Your task to perform on an android device: delete the emails in spam in the gmail app Image 0: 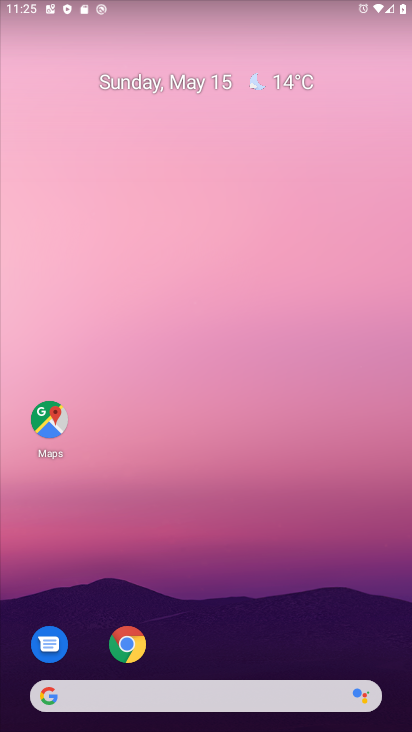
Step 0: drag from (247, 460) to (171, 72)
Your task to perform on an android device: delete the emails in spam in the gmail app Image 1: 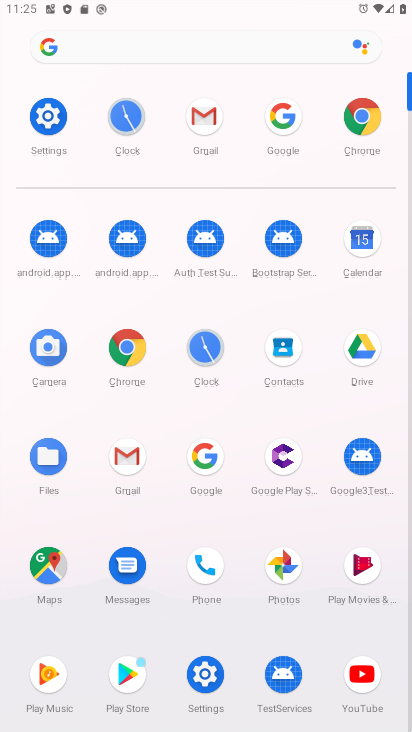
Step 1: click (201, 150)
Your task to perform on an android device: delete the emails in spam in the gmail app Image 2: 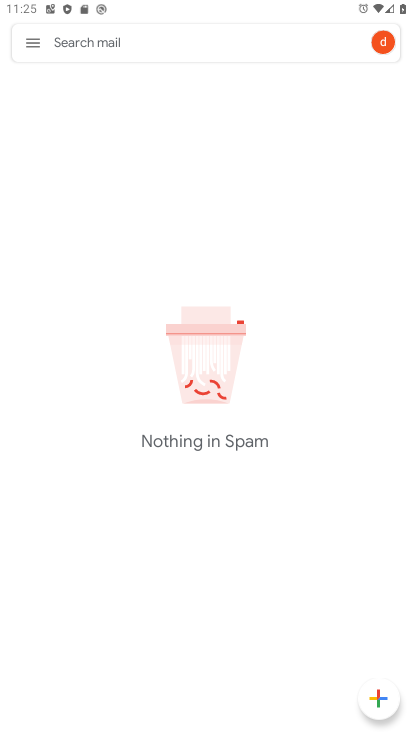
Step 2: click (33, 40)
Your task to perform on an android device: delete the emails in spam in the gmail app Image 3: 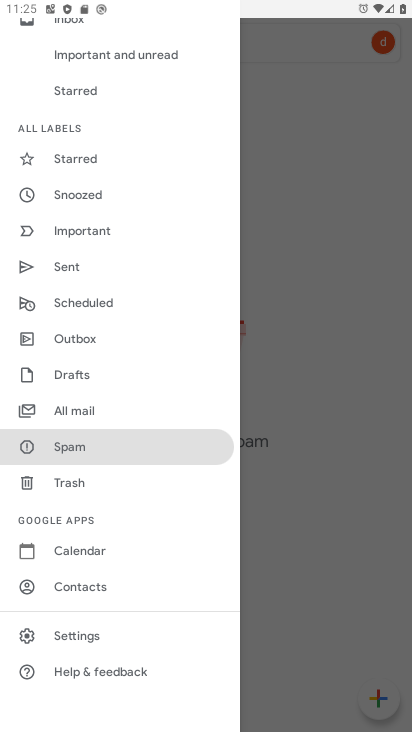
Step 3: click (81, 443)
Your task to perform on an android device: delete the emails in spam in the gmail app Image 4: 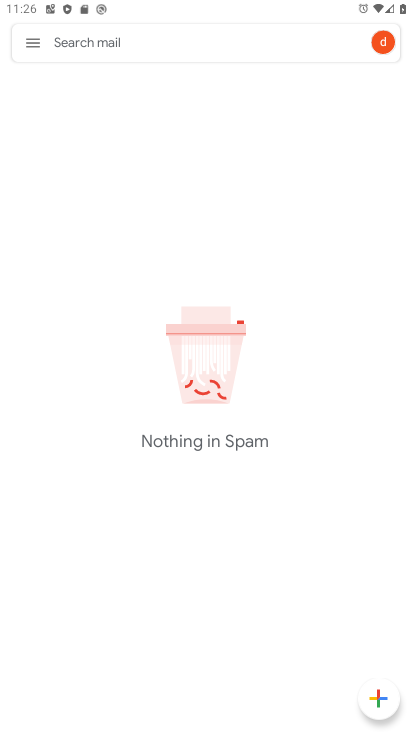
Step 4: task complete